Your task to perform on an android device: remove spam from my inbox in the gmail app Image 0: 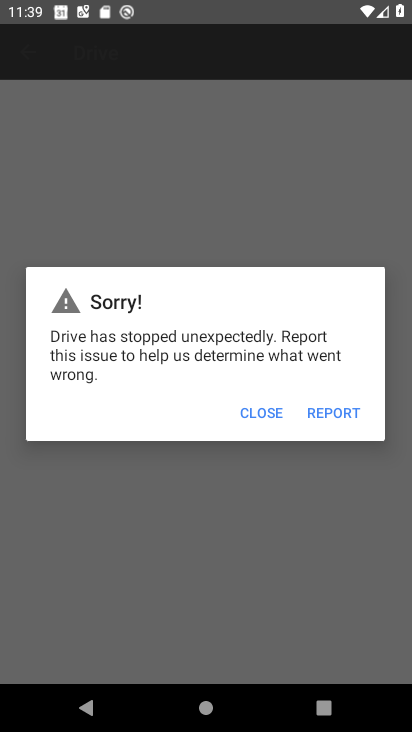
Step 0: press home button
Your task to perform on an android device: remove spam from my inbox in the gmail app Image 1: 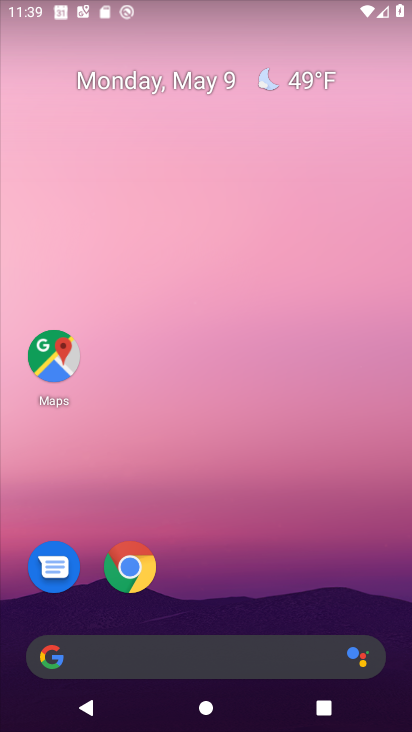
Step 1: drag from (121, 638) to (153, 241)
Your task to perform on an android device: remove spam from my inbox in the gmail app Image 2: 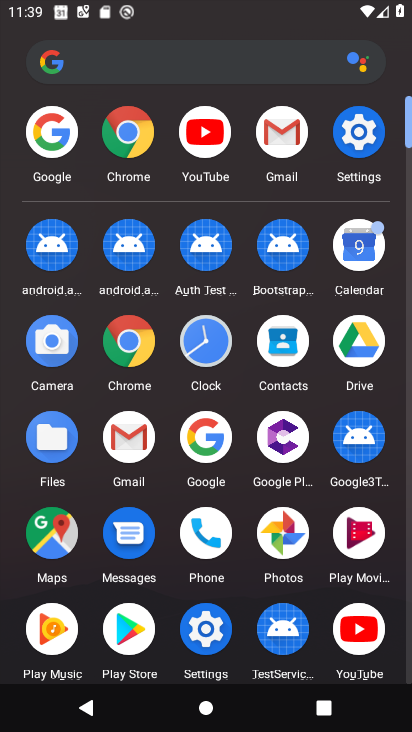
Step 2: click (290, 112)
Your task to perform on an android device: remove spam from my inbox in the gmail app Image 3: 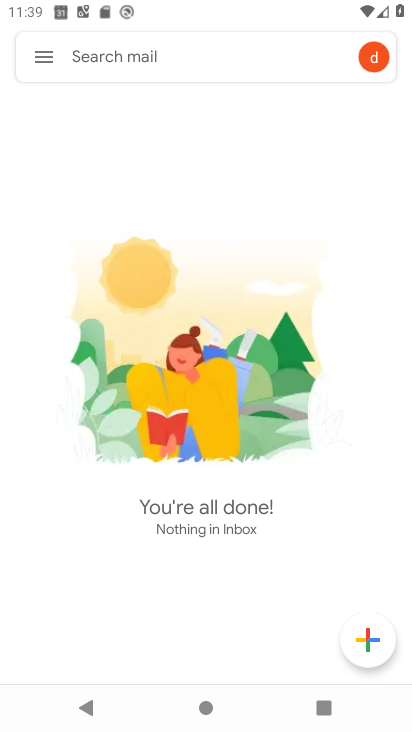
Step 3: click (42, 56)
Your task to perform on an android device: remove spam from my inbox in the gmail app Image 4: 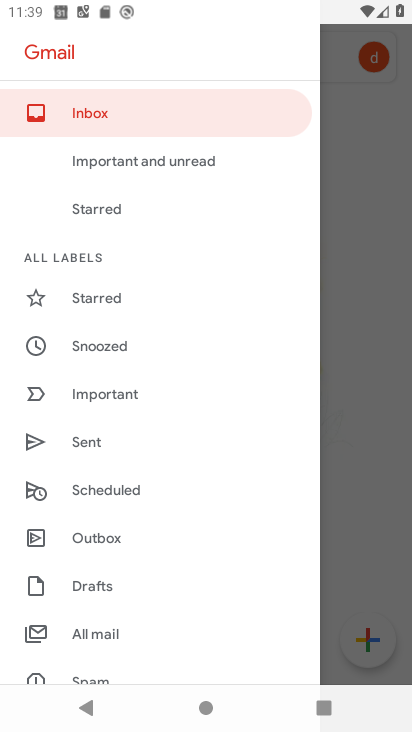
Step 4: drag from (136, 631) to (158, 326)
Your task to perform on an android device: remove spam from my inbox in the gmail app Image 5: 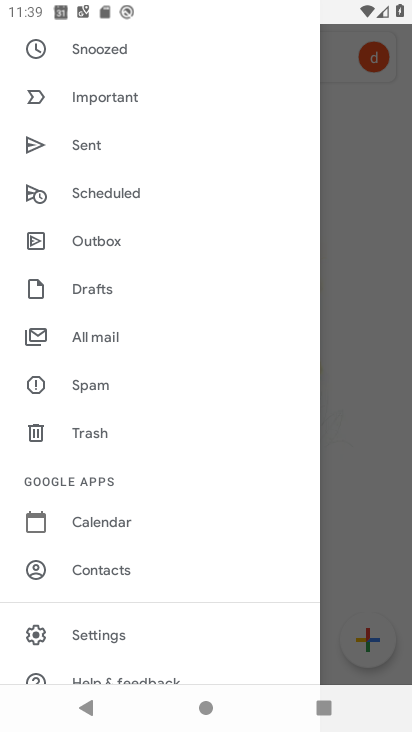
Step 5: click (91, 397)
Your task to perform on an android device: remove spam from my inbox in the gmail app Image 6: 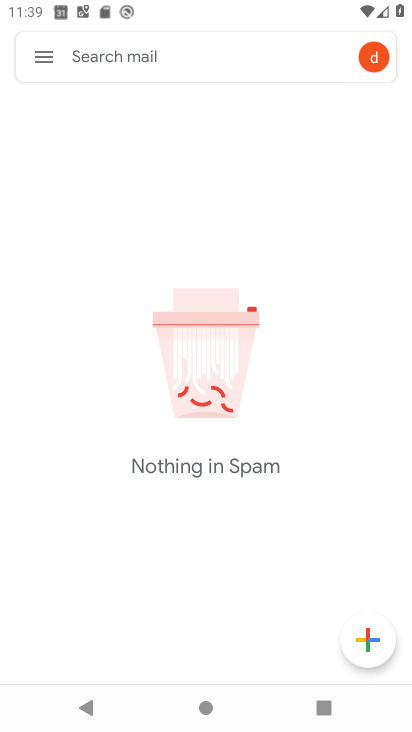
Step 6: task complete